Your task to perform on an android device: open app "Expedia: Hotels, Flights & Car" Image 0: 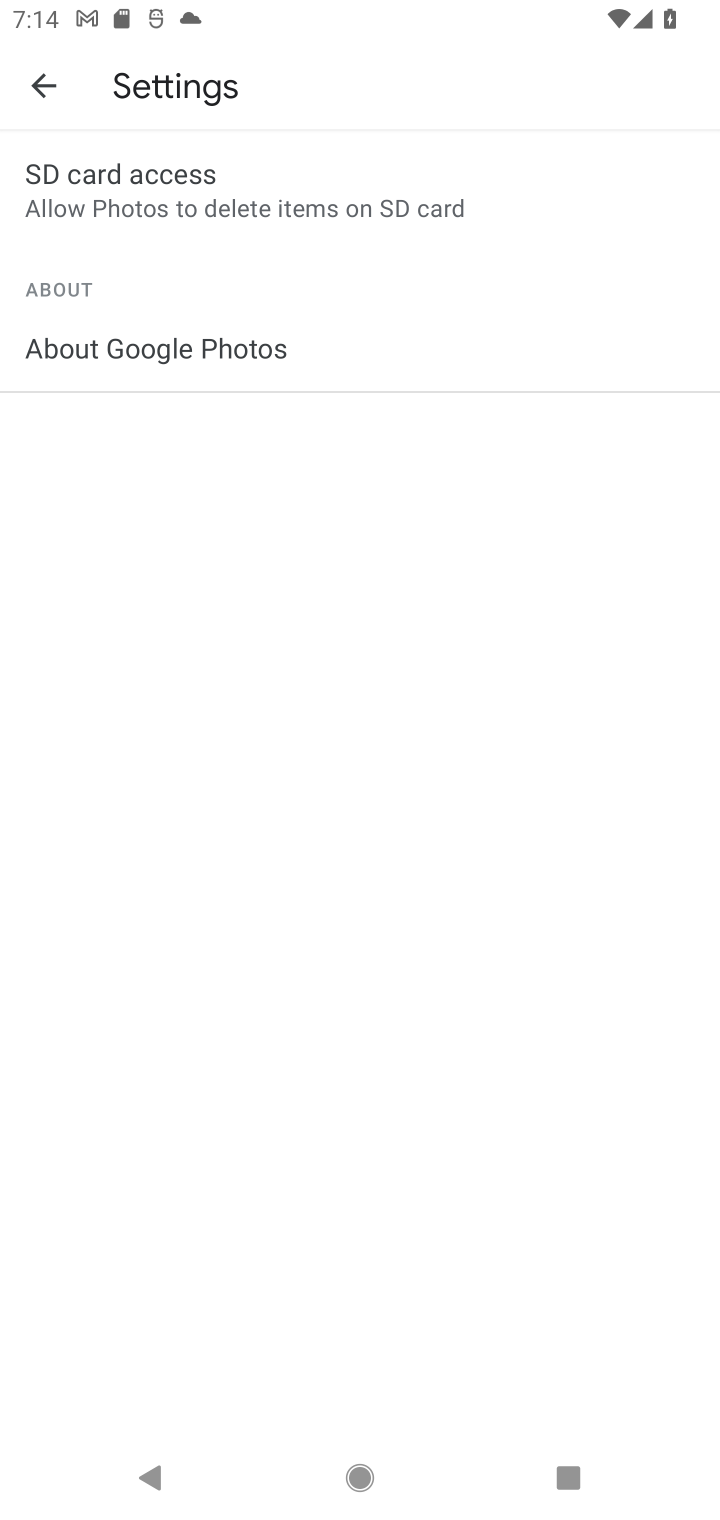
Step 0: press home button
Your task to perform on an android device: open app "Expedia: Hotels, Flights & Car" Image 1: 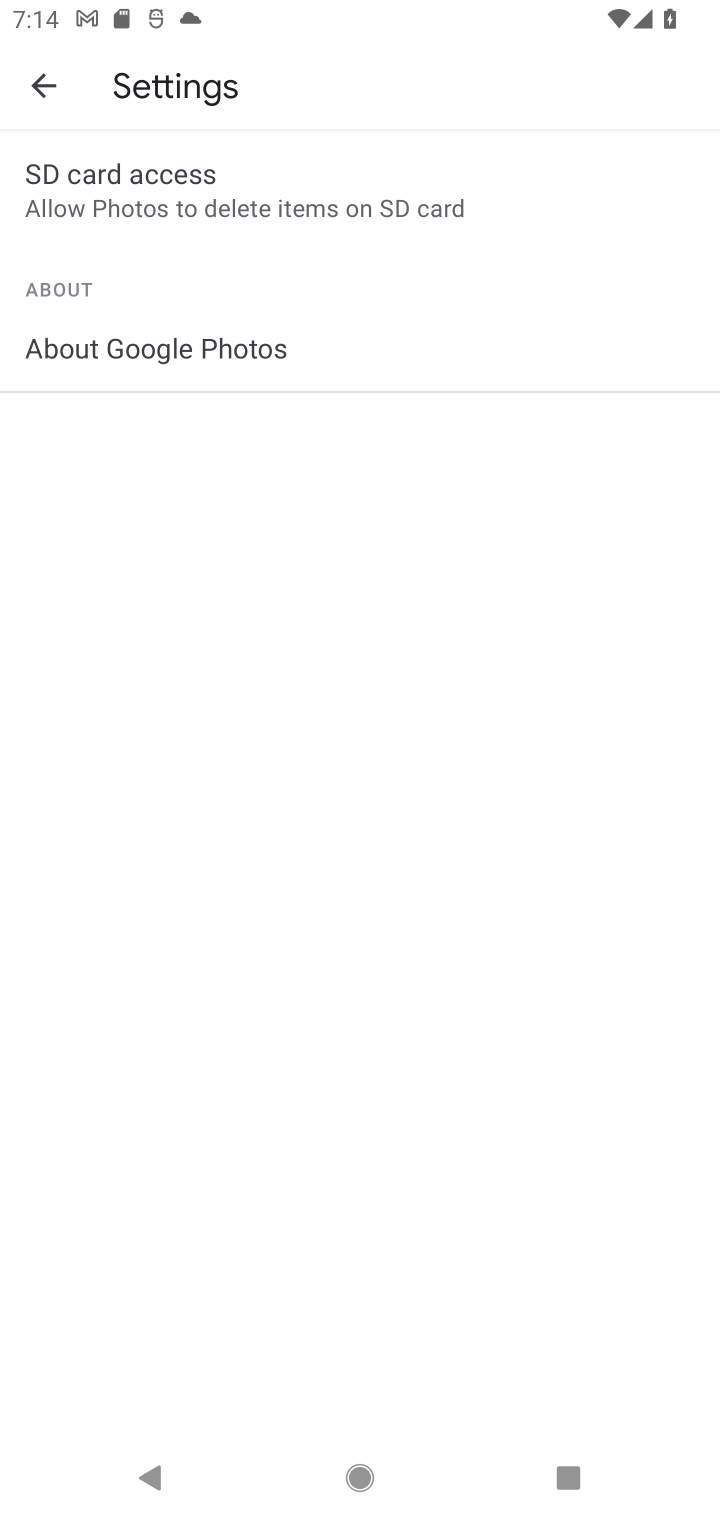
Step 1: press home button
Your task to perform on an android device: open app "Expedia: Hotels, Flights & Car" Image 2: 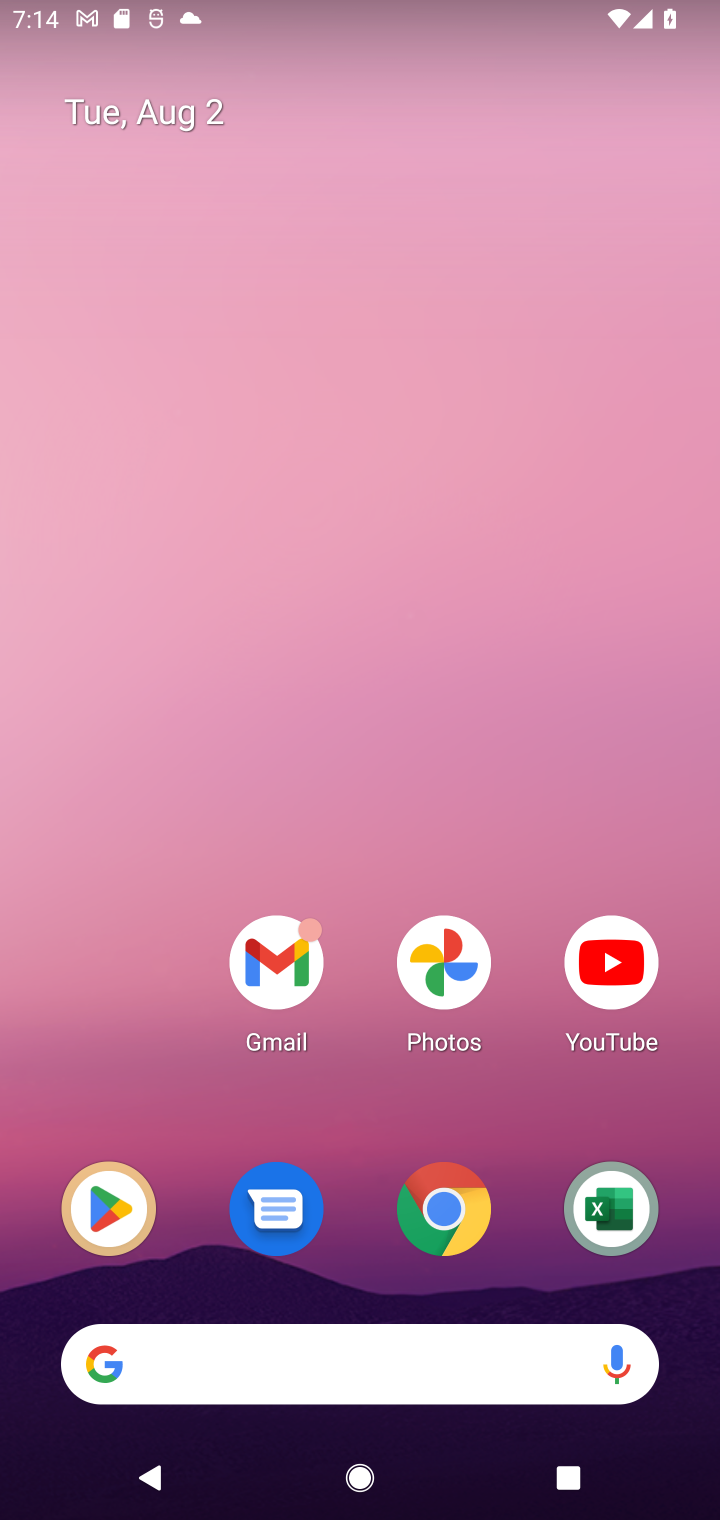
Step 2: drag from (411, 1307) to (409, 668)
Your task to perform on an android device: open app "Expedia: Hotels, Flights & Car" Image 3: 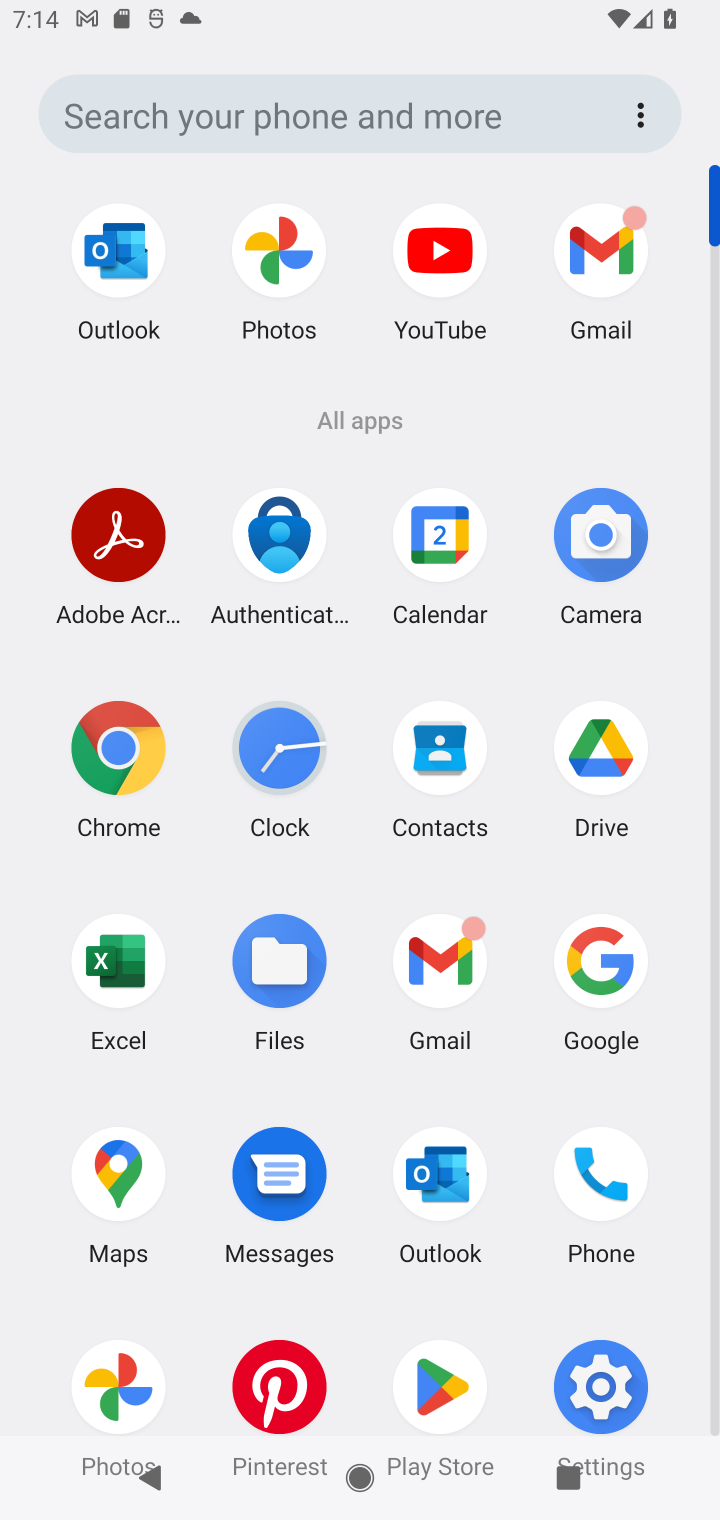
Step 3: click (429, 1382)
Your task to perform on an android device: open app "Expedia: Hotels, Flights & Car" Image 4: 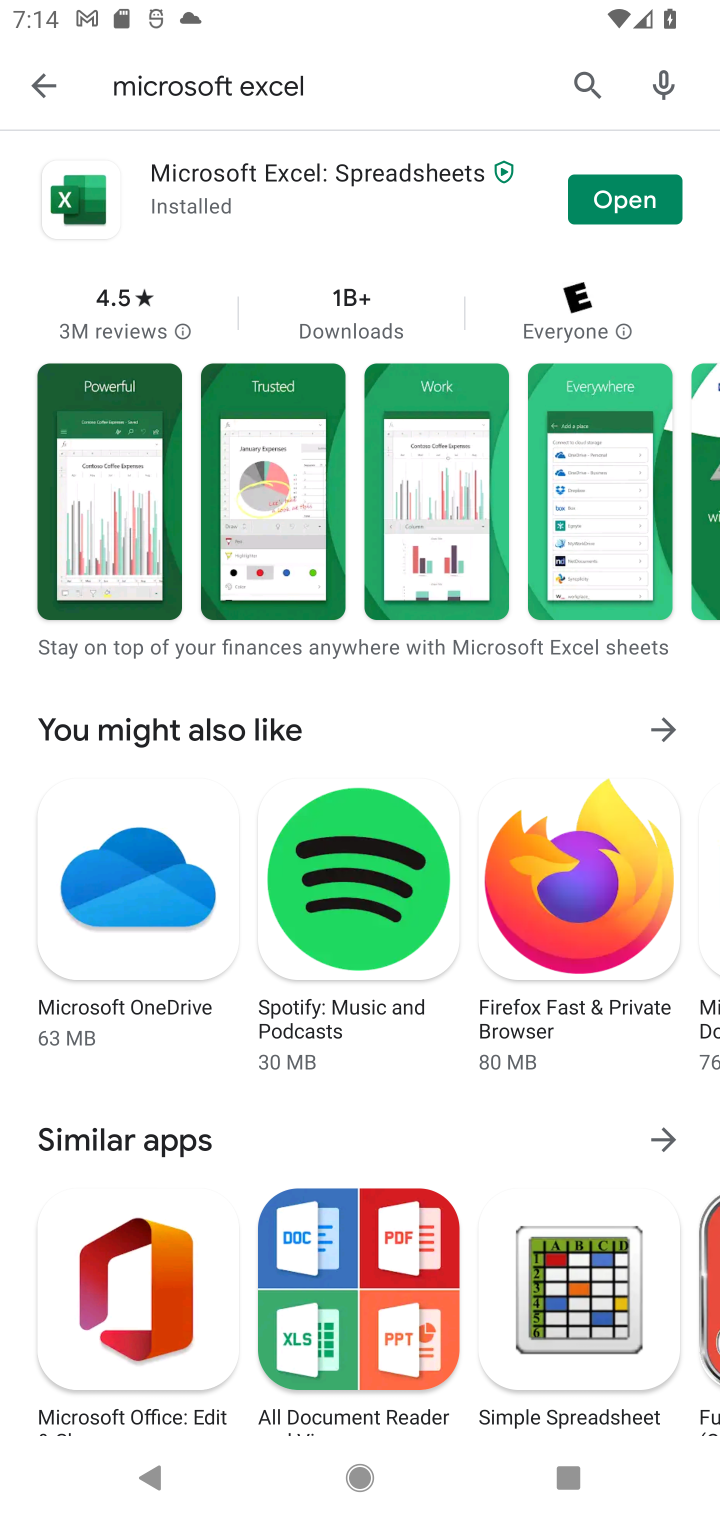
Step 4: click (583, 90)
Your task to perform on an android device: open app "Expedia: Hotels, Flights & Car" Image 5: 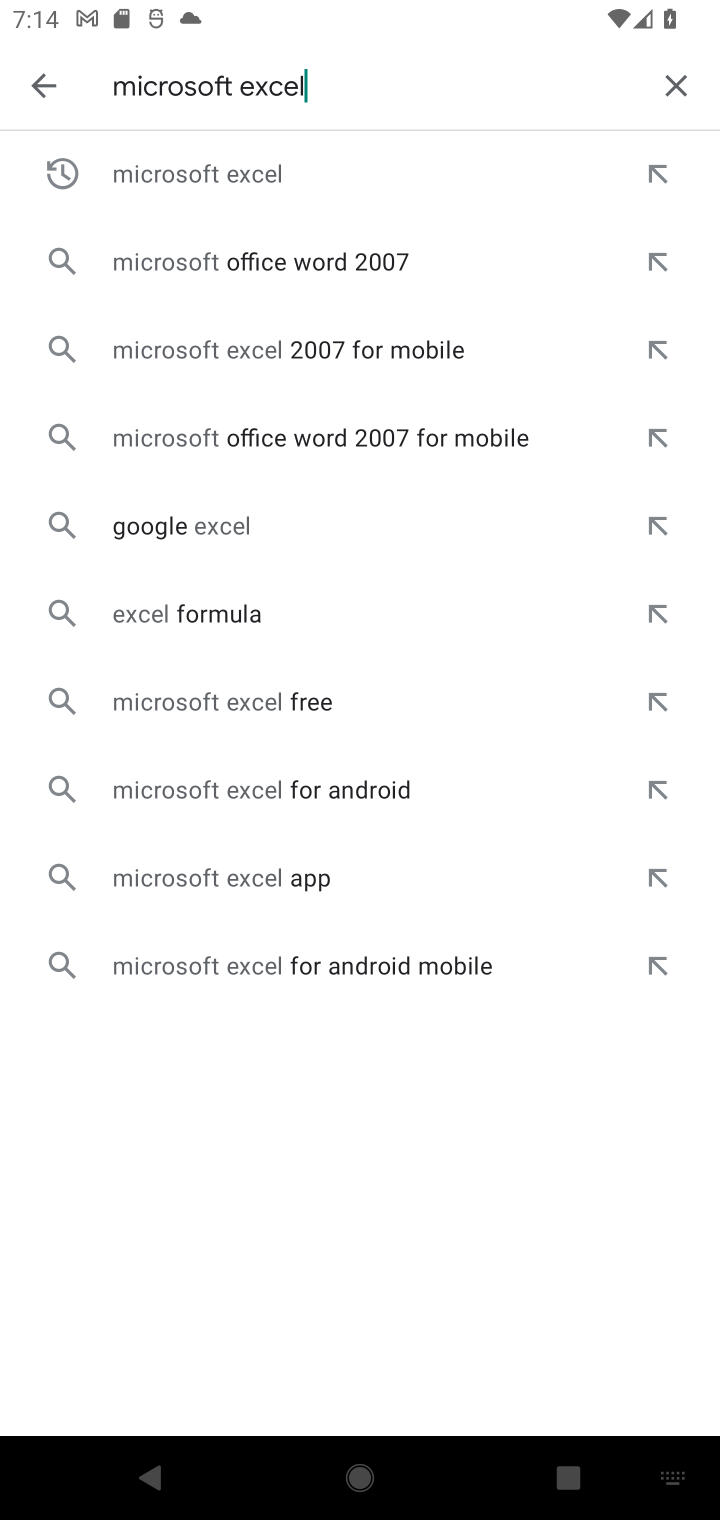
Step 5: click (668, 84)
Your task to perform on an android device: open app "Expedia: Hotels, Flights & Car" Image 6: 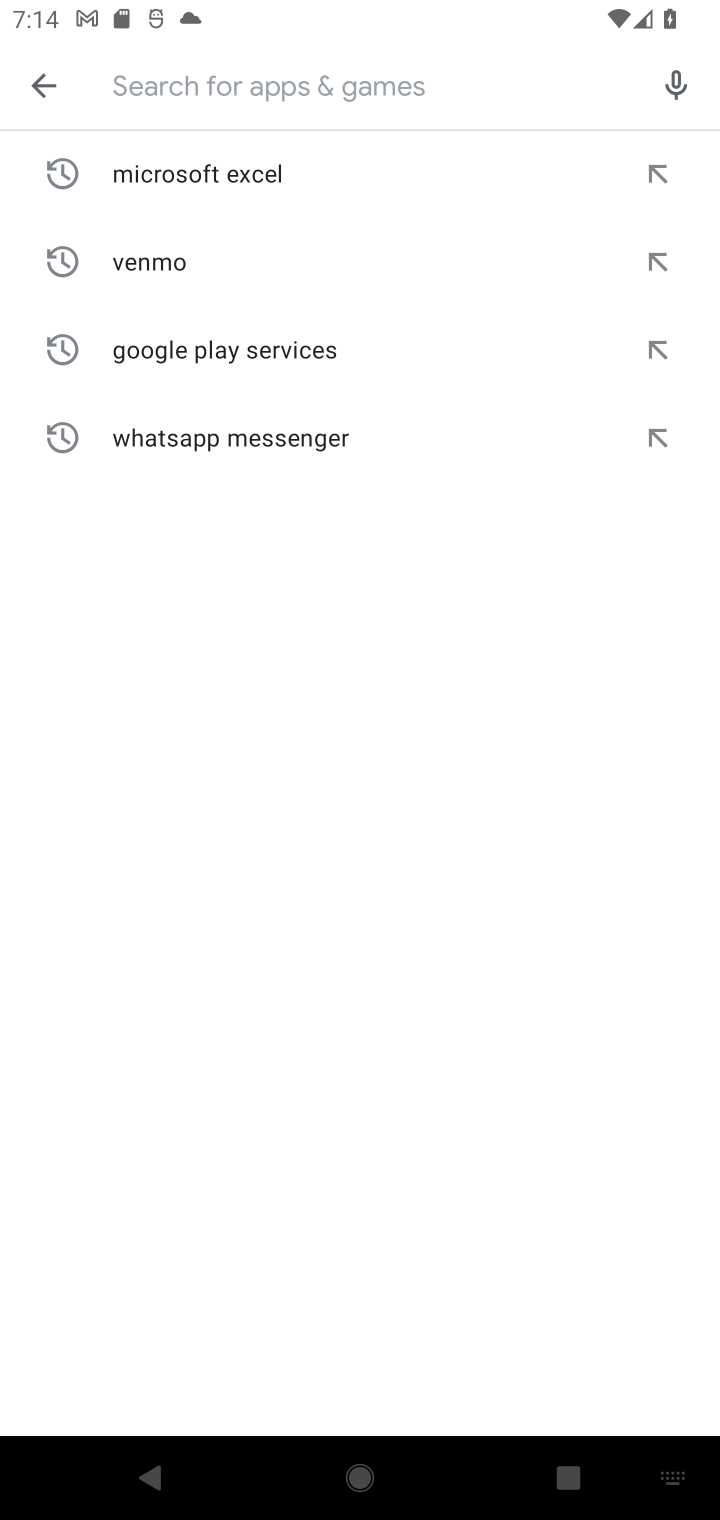
Step 6: type "Expedia: Hotels, Flights & Car"
Your task to perform on an android device: open app "Expedia: Hotels, Flights & Car" Image 7: 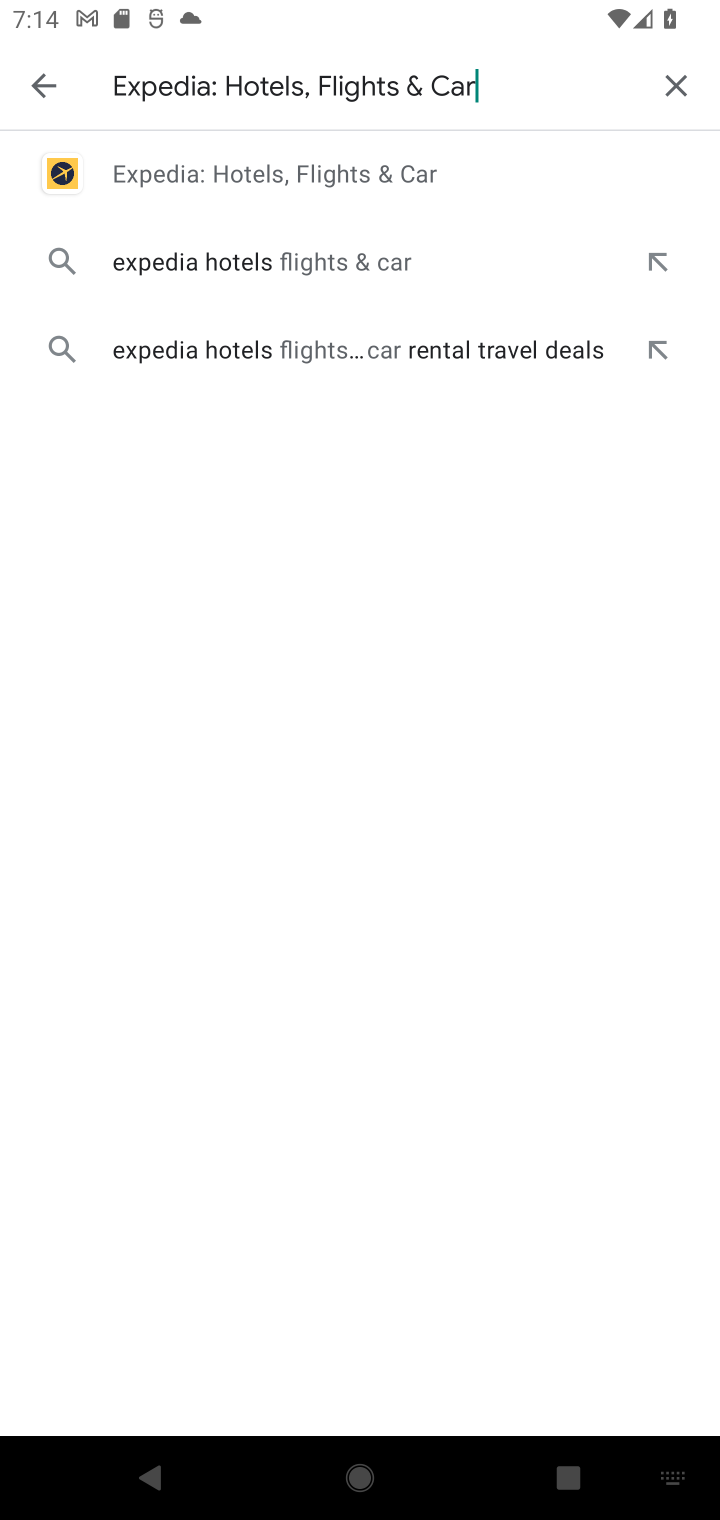
Step 7: click (266, 164)
Your task to perform on an android device: open app "Expedia: Hotels, Flights & Car" Image 8: 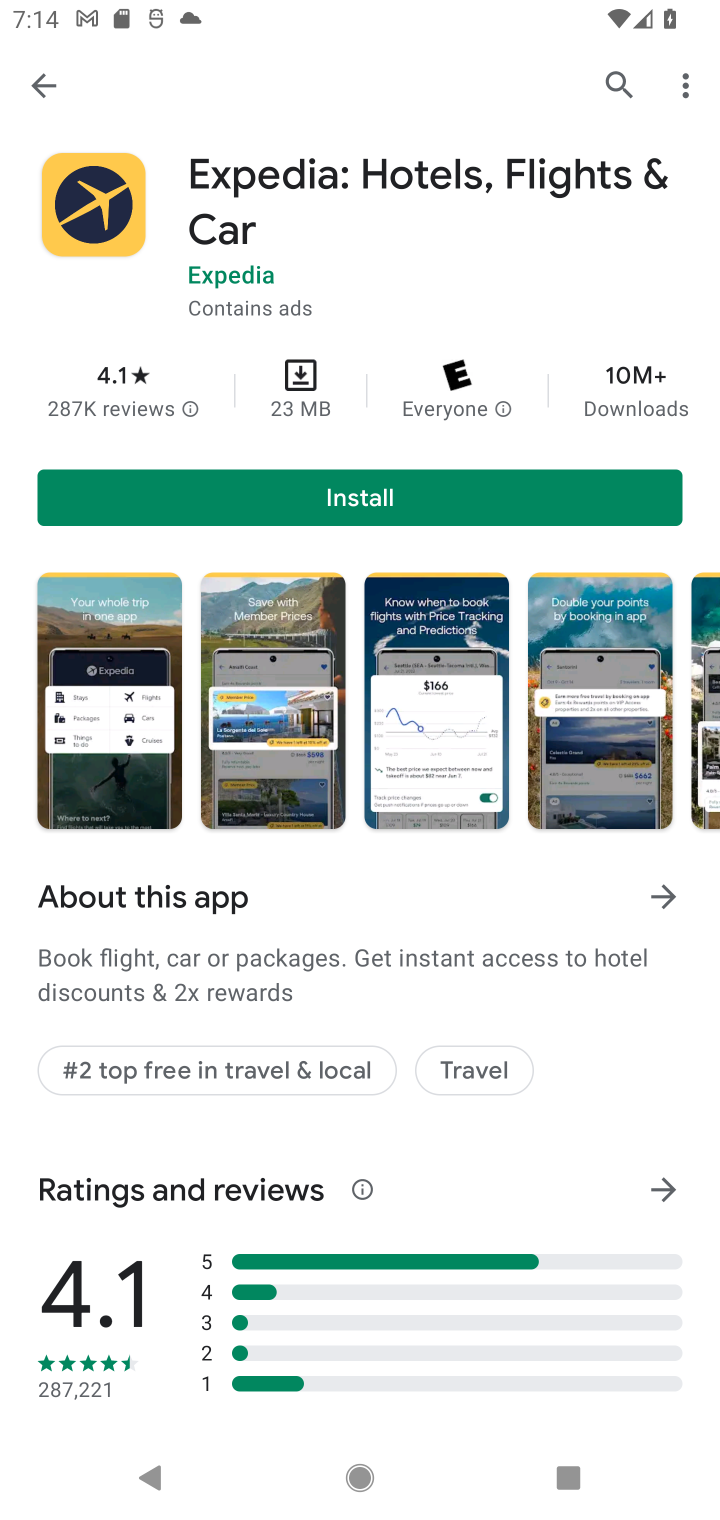
Step 8: task complete